Your task to perform on an android device: View the shopping cart on amazon.com. Add "beats solo 3" to the cart on amazon.com Image 0: 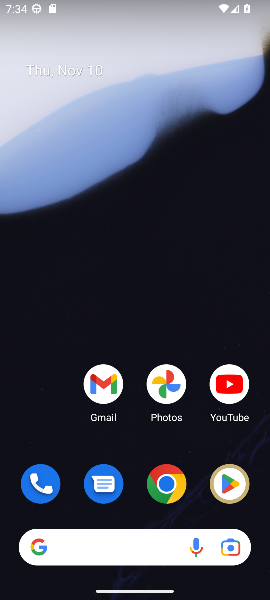
Step 0: click (168, 494)
Your task to perform on an android device: View the shopping cart on amazon.com. Add "beats solo 3" to the cart on amazon.com Image 1: 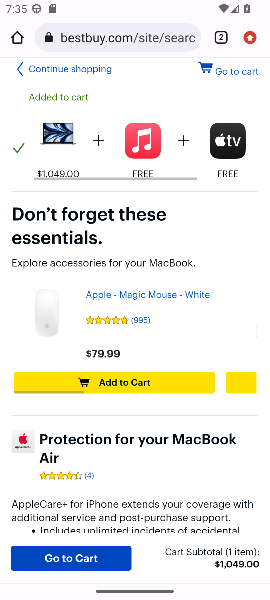
Step 1: click (112, 39)
Your task to perform on an android device: View the shopping cart on amazon.com. Add "beats solo 3" to the cart on amazon.com Image 2: 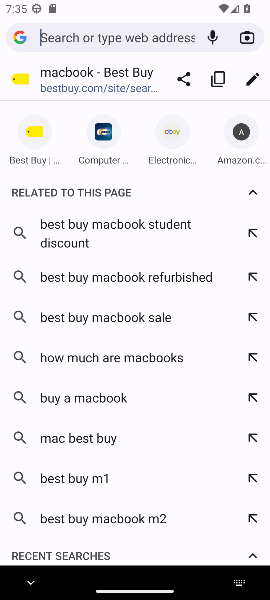
Step 2: click (232, 160)
Your task to perform on an android device: View the shopping cart on amazon.com. Add "beats solo 3" to the cart on amazon.com Image 3: 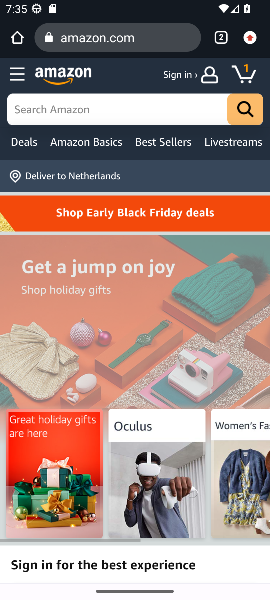
Step 3: click (246, 74)
Your task to perform on an android device: View the shopping cart on amazon.com. Add "beats solo 3" to the cart on amazon.com Image 4: 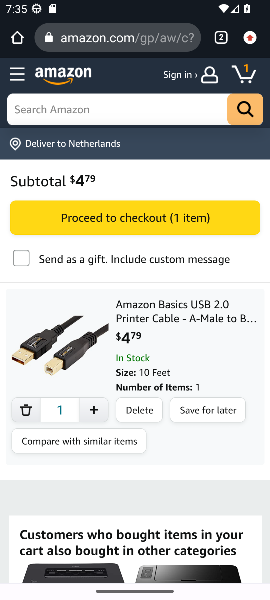
Step 4: click (137, 115)
Your task to perform on an android device: View the shopping cart on amazon.com. Add "beats solo 3" to the cart on amazon.com Image 5: 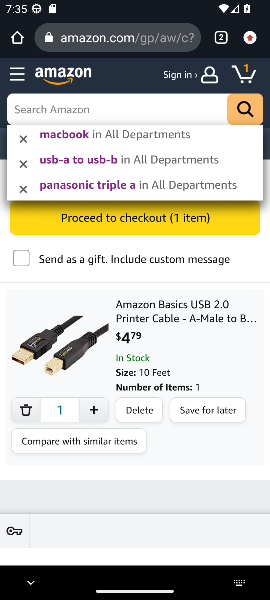
Step 5: type "beats solo 3"
Your task to perform on an android device: View the shopping cart on amazon.com. Add "beats solo 3" to the cart on amazon.com Image 6: 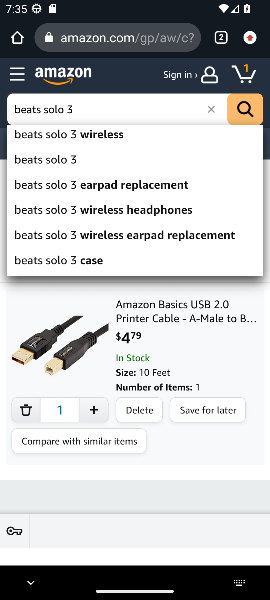
Step 6: click (63, 164)
Your task to perform on an android device: View the shopping cart on amazon.com. Add "beats solo 3" to the cart on amazon.com Image 7: 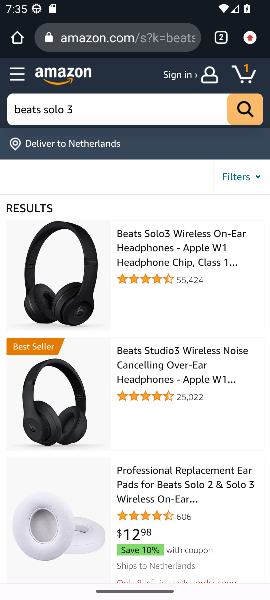
Step 7: click (56, 272)
Your task to perform on an android device: View the shopping cart on amazon.com. Add "beats solo 3" to the cart on amazon.com Image 8: 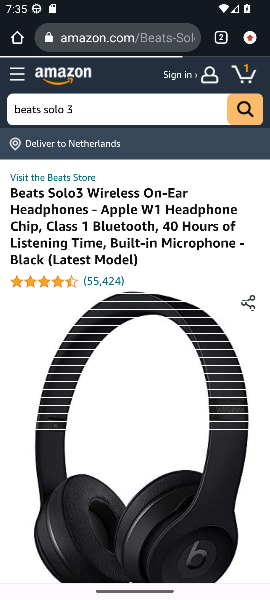
Step 8: drag from (118, 445) to (118, 129)
Your task to perform on an android device: View the shopping cart on amazon.com. Add "beats solo 3" to the cart on amazon.com Image 9: 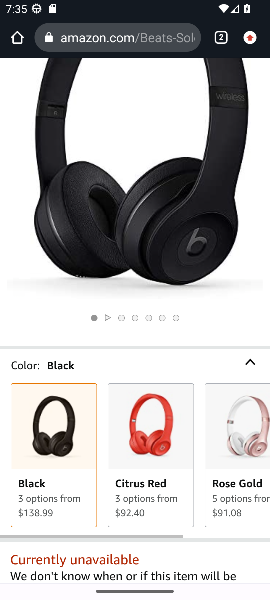
Step 9: drag from (131, 398) to (129, 152)
Your task to perform on an android device: View the shopping cart on amazon.com. Add "beats solo 3" to the cart on amazon.com Image 10: 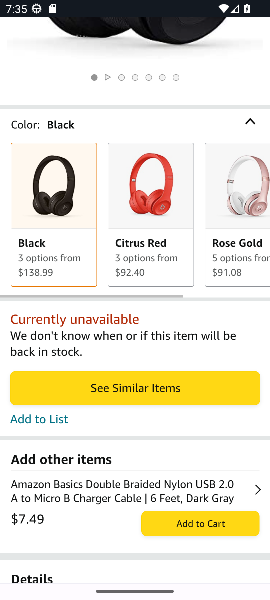
Step 10: drag from (138, 252) to (141, 491)
Your task to perform on an android device: View the shopping cart on amazon.com. Add "beats solo 3" to the cart on amazon.com Image 11: 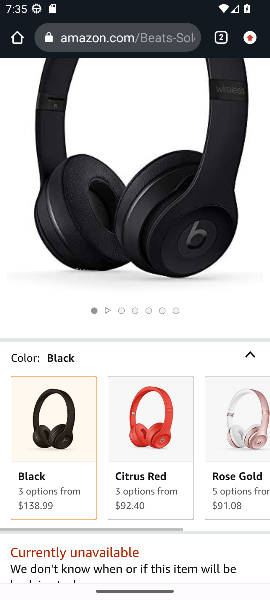
Step 11: click (156, 439)
Your task to perform on an android device: View the shopping cart on amazon.com. Add "beats solo 3" to the cart on amazon.com Image 12: 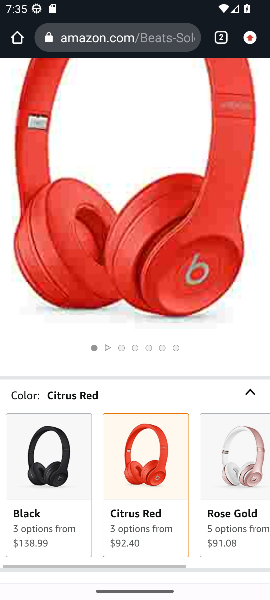
Step 12: drag from (145, 491) to (134, 334)
Your task to perform on an android device: View the shopping cart on amazon.com. Add "beats solo 3" to the cart on amazon.com Image 13: 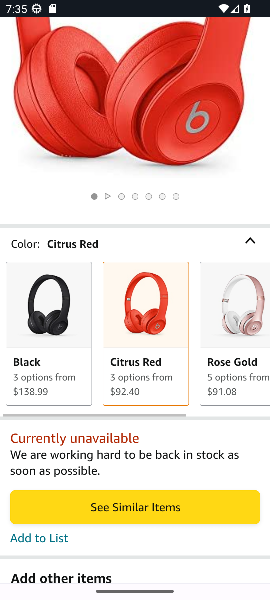
Step 13: click (233, 336)
Your task to perform on an android device: View the shopping cart on amazon.com. Add "beats solo 3" to the cart on amazon.com Image 14: 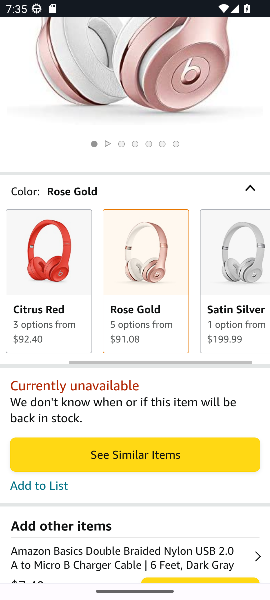
Step 14: press back button
Your task to perform on an android device: View the shopping cart on amazon.com. Add "beats solo 3" to the cart on amazon.com Image 15: 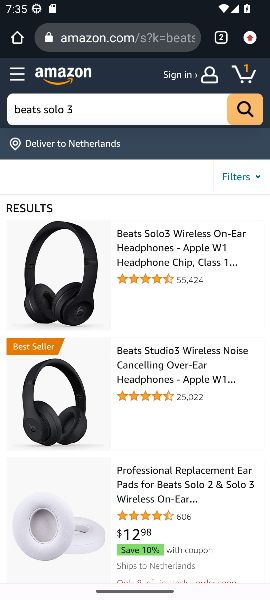
Step 15: drag from (94, 427) to (94, 292)
Your task to perform on an android device: View the shopping cart on amazon.com. Add "beats solo 3" to the cart on amazon.com Image 16: 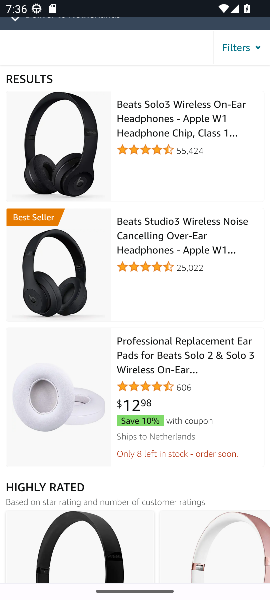
Step 16: click (83, 399)
Your task to perform on an android device: View the shopping cart on amazon.com. Add "beats solo 3" to the cart on amazon.com Image 17: 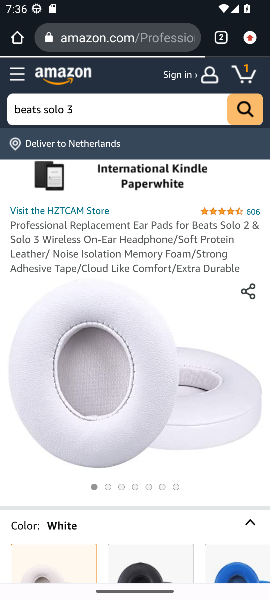
Step 17: drag from (99, 456) to (82, 188)
Your task to perform on an android device: View the shopping cart on amazon.com. Add "beats solo 3" to the cart on amazon.com Image 18: 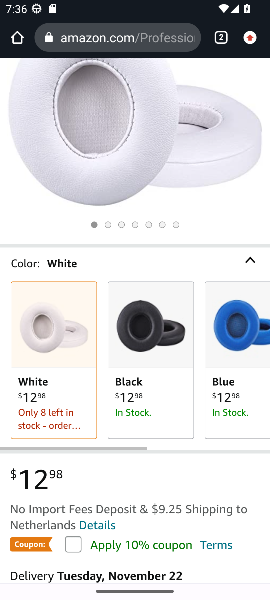
Step 18: drag from (103, 416) to (91, 220)
Your task to perform on an android device: View the shopping cart on amazon.com. Add "beats solo 3" to the cart on amazon.com Image 19: 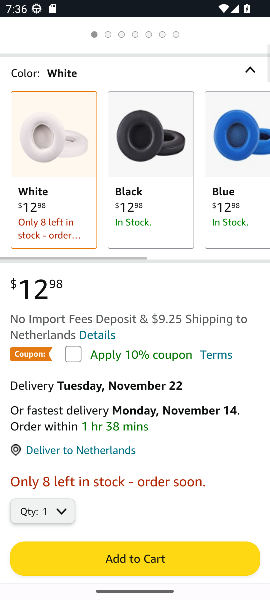
Step 19: click (130, 556)
Your task to perform on an android device: View the shopping cart on amazon.com. Add "beats solo 3" to the cart on amazon.com Image 20: 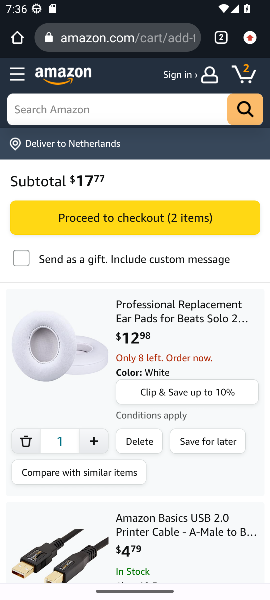
Step 20: task complete